Your task to perform on an android device: change timer sound Image 0: 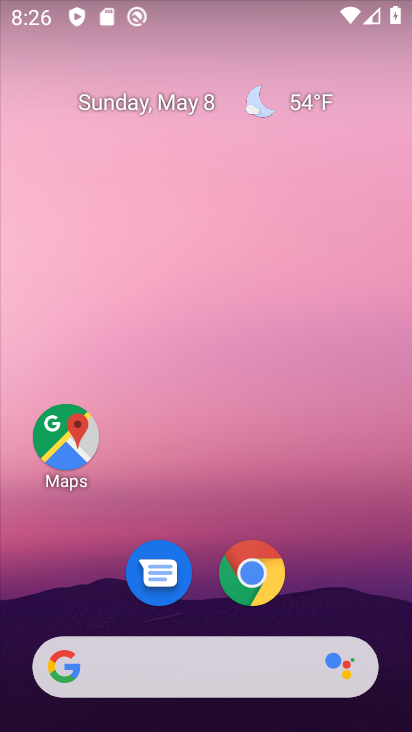
Step 0: click (254, 102)
Your task to perform on an android device: change timer sound Image 1: 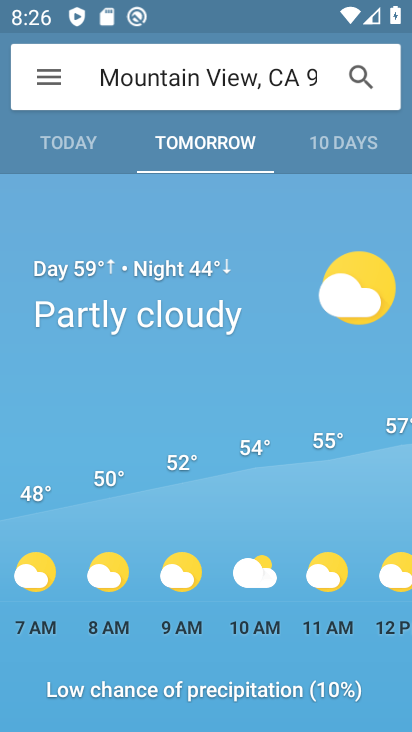
Step 1: press back button
Your task to perform on an android device: change timer sound Image 2: 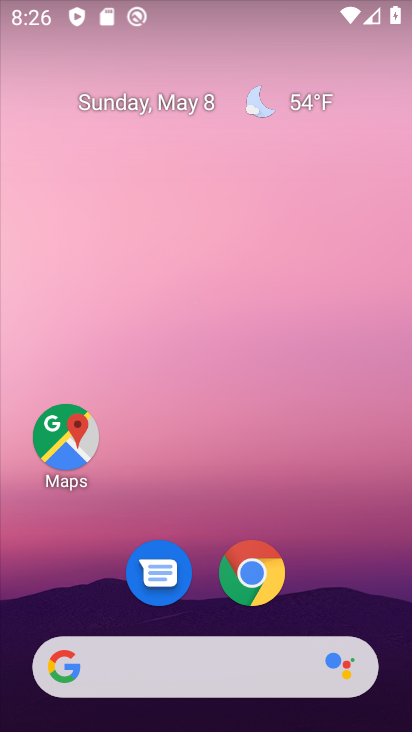
Step 2: drag from (218, 726) to (177, 194)
Your task to perform on an android device: change timer sound Image 3: 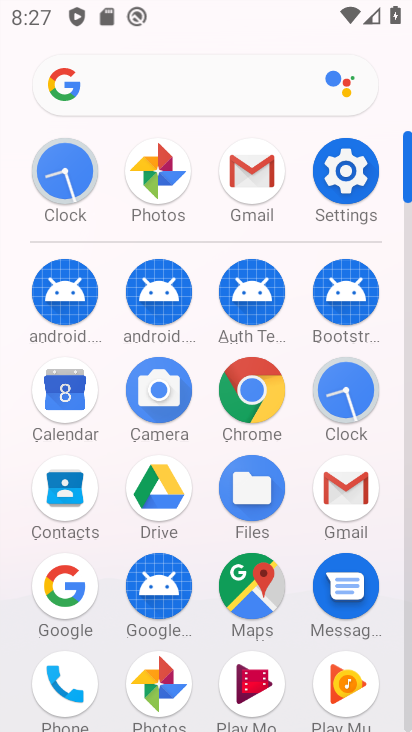
Step 3: click (341, 389)
Your task to perform on an android device: change timer sound Image 4: 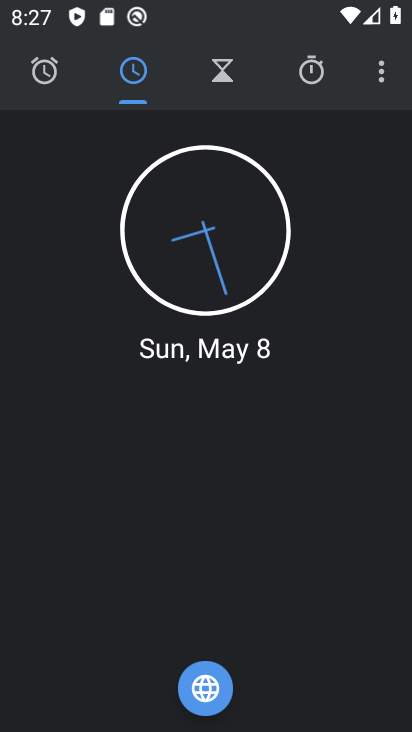
Step 4: click (380, 77)
Your task to perform on an android device: change timer sound Image 5: 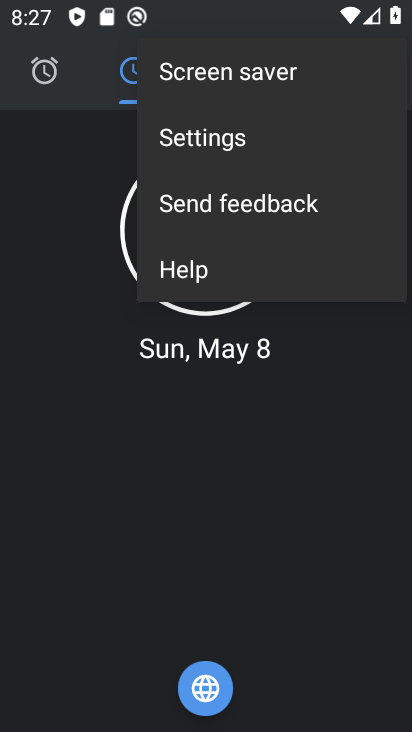
Step 5: click (203, 135)
Your task to perform on an android device: change timer sound Image 6: 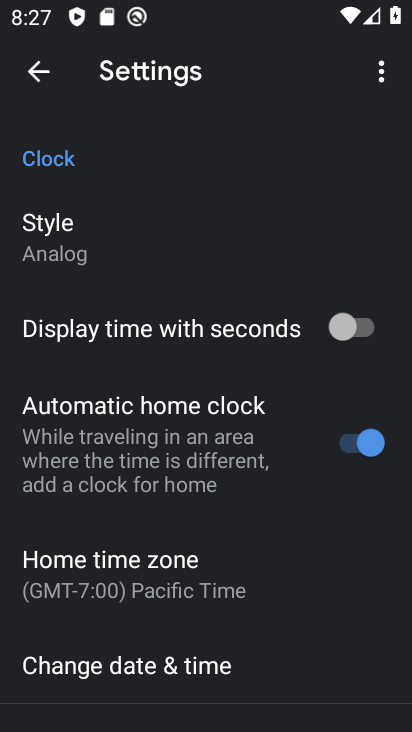
Step 6: drag from (144, 569) to (157, 265)
Your task to perform on an android device: change timer sound Image 7: 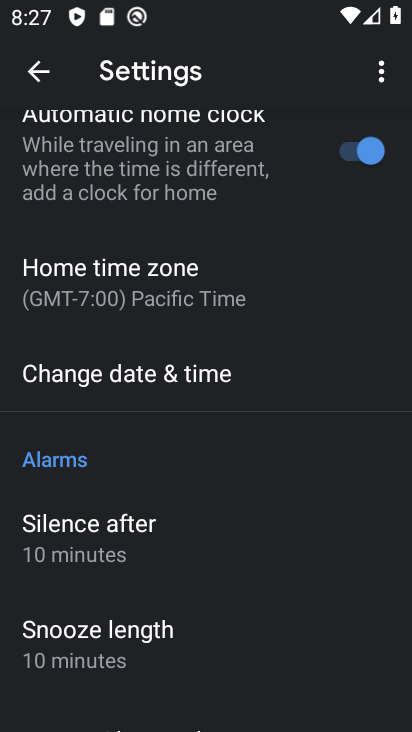
Step 7: drag from (199, 658) to (237, 321)
Your task to perform on an android device: change timer sound Image 8: 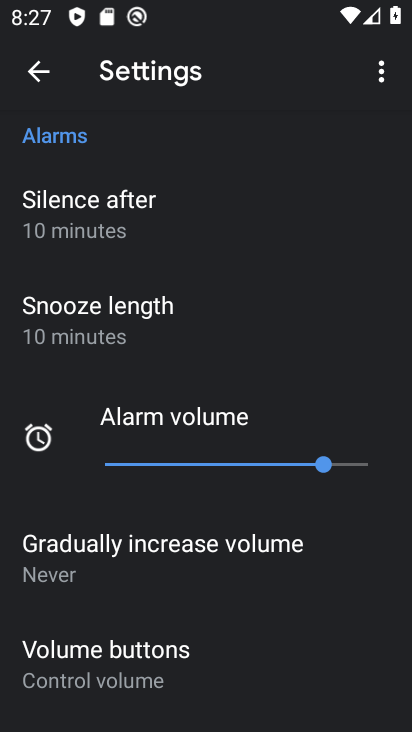
Step 8: drag from (196, 682) to (227, 263)
Your task to perform on an android device: change timer sound Image 9: 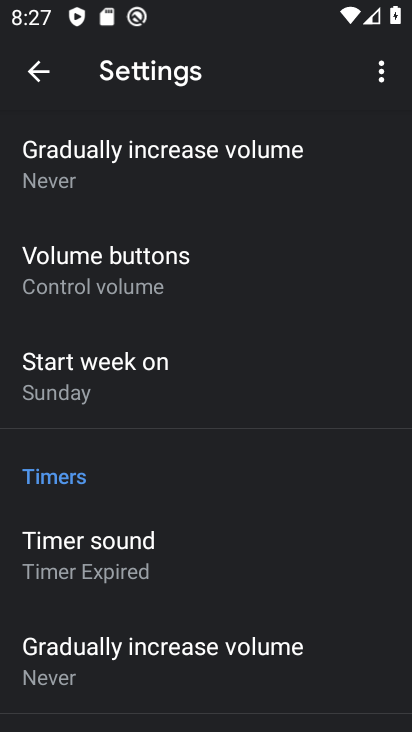
Step 9: click (109, 564)
Your task to perform on an android device: change timer sound Image 10: 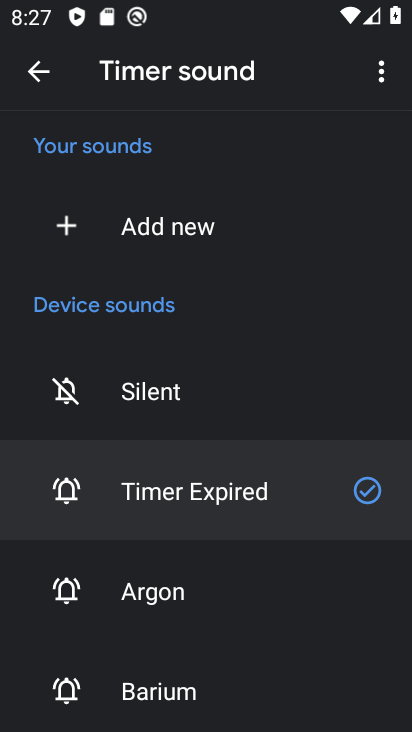
Step 10: click (141, 690)
Your task to perform on an android device: change timer sound Image 11: 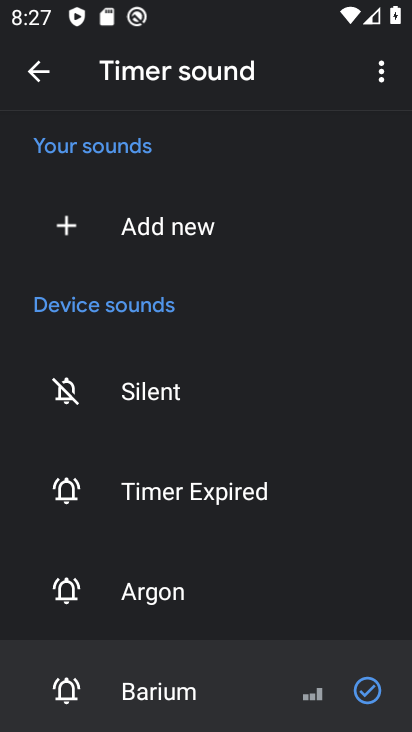
Step 11: task complete